Your task to perform on an android device: What's the weather? Image 0: 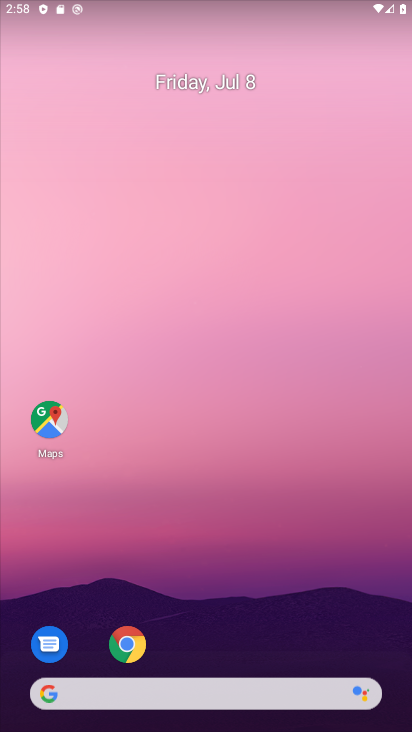
Step 0: click (121, 649)
Your task to perform on an android device: What's the weather? Image 1: 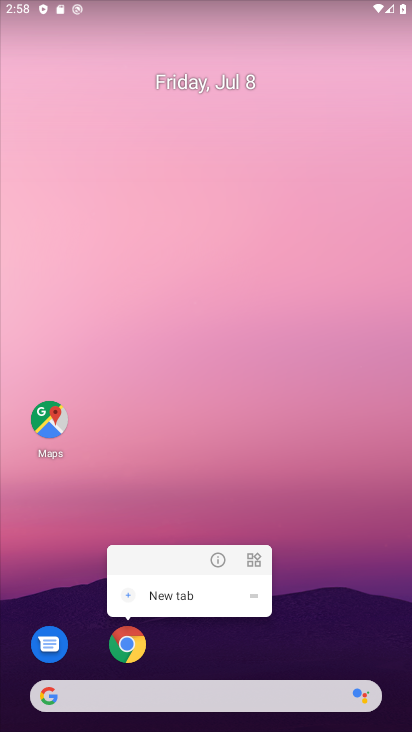
Step 1: click (129, 642)
Your task to perform on an android device: What's the weather? Image 2: 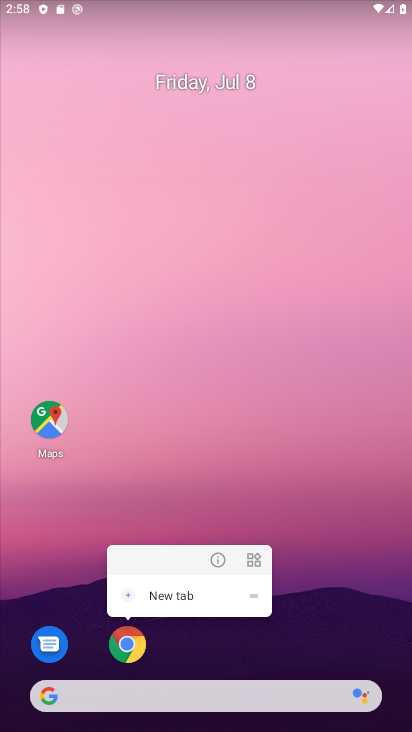
Step 2: click (131, 642)
Your task to perform on an android device: What's the weather? Image 3: 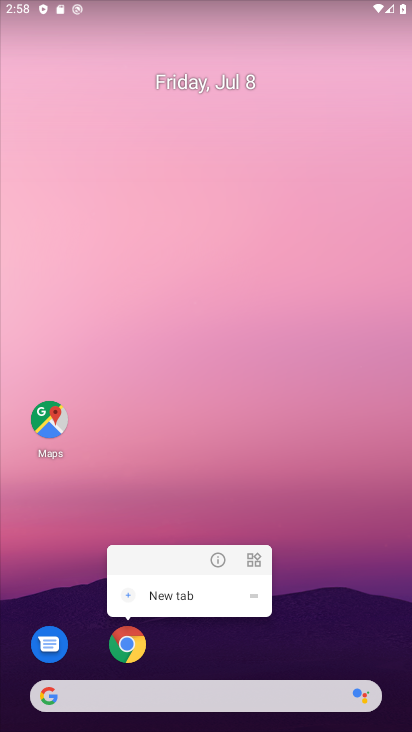
Step 3: click (131, 642)
Your task to perform on an android device: What's the weather? Image 4: 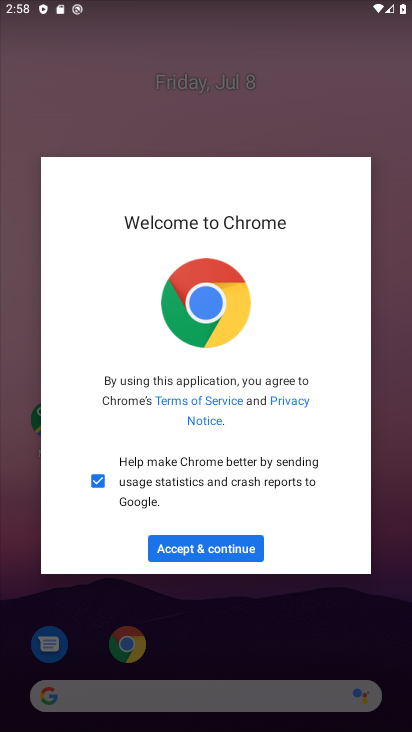
Step 4: click (249, 535)
Your task to perform on an android device: What's the weather? Image 5: 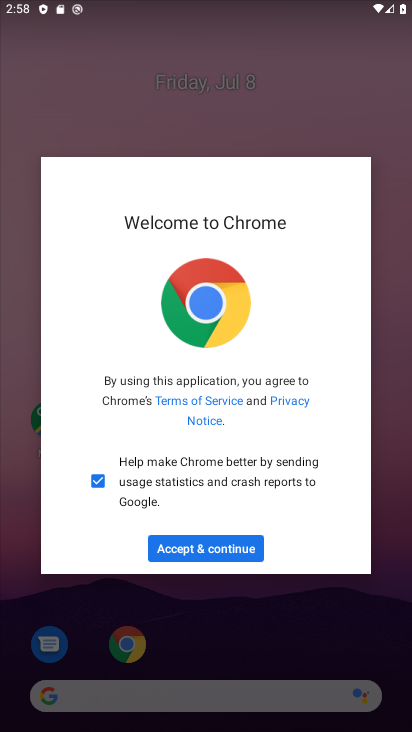
Step 5: click (252, 558)
Your task to perform on an android device: What's the weather? Image 6: 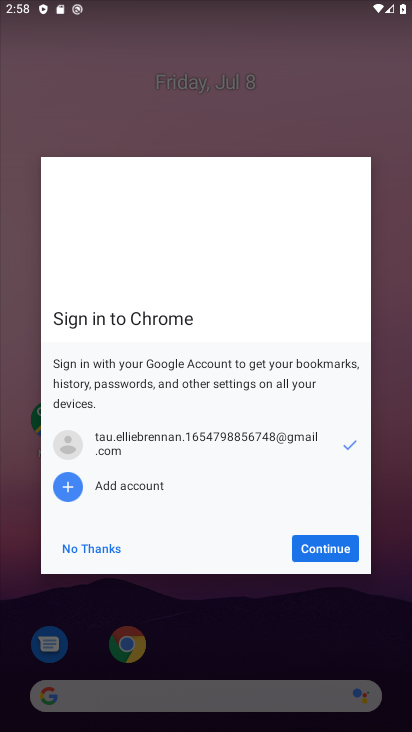
Step 6: click (317, 546)
Your task to perform on an android device: What's the weather? Image 7: 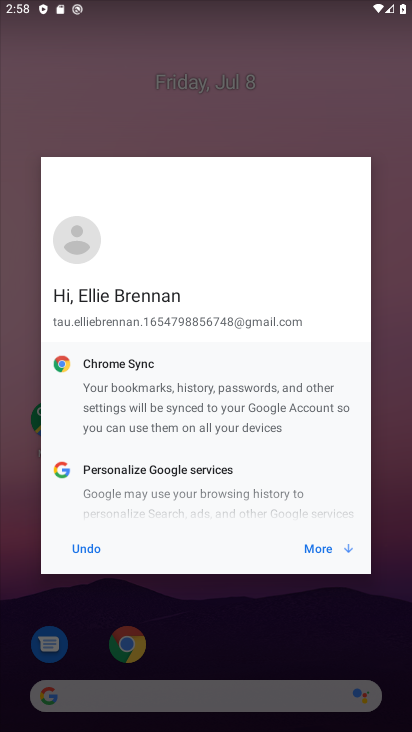
Step 7: click (316, 546)
Your task to perform on an android device: What's the weather? Image 8: 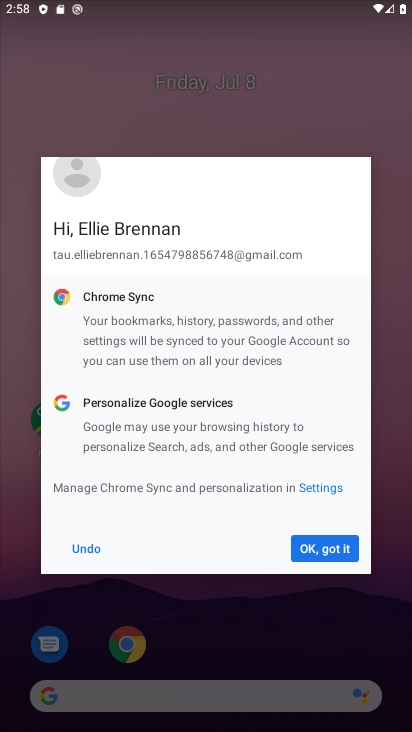
Step 8: click (343, 533)
Your task to perform on an android device: What's the weather? Image 9: 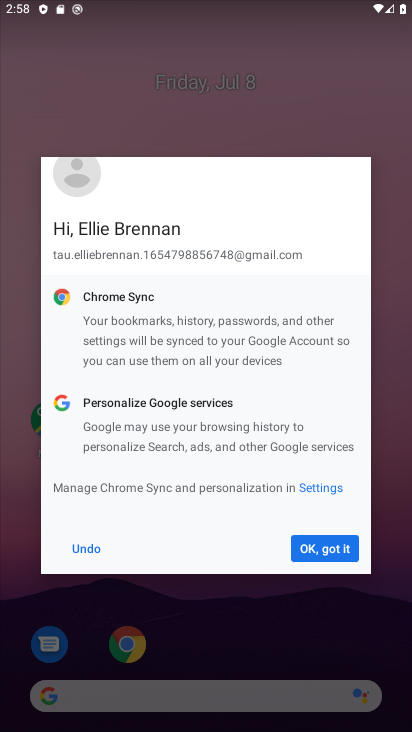
Step 9: click (323, 556)
Your task to perform on an android device: What's the weather? Image 10: 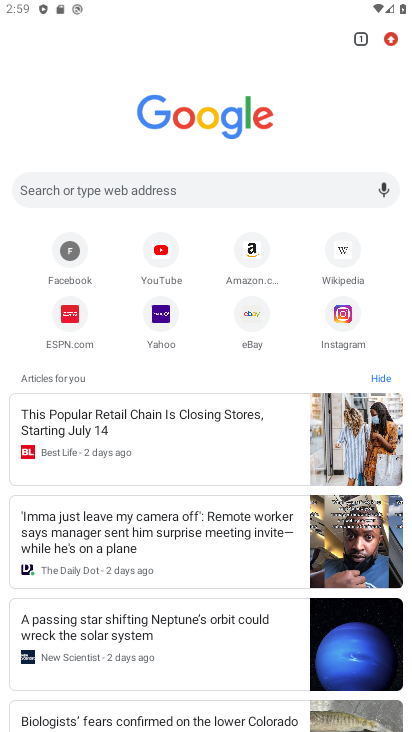
Step 10: type "What's the weather?"
Your task to perform on an android device: What's the weather? Image 11: 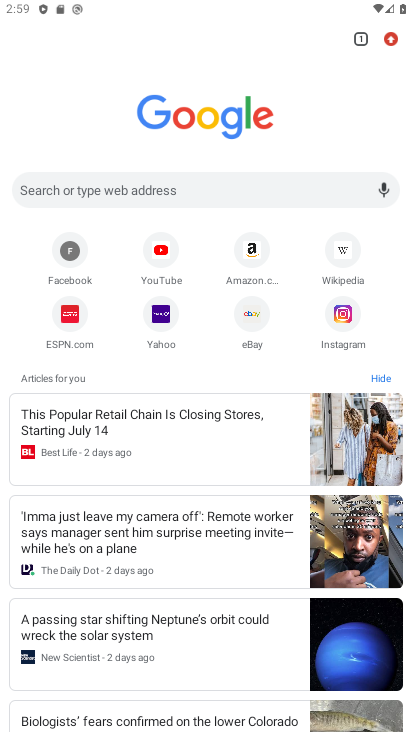
Step 11: click (188, 188)
Your task to perform on an android device: What's the weather? Image 12: 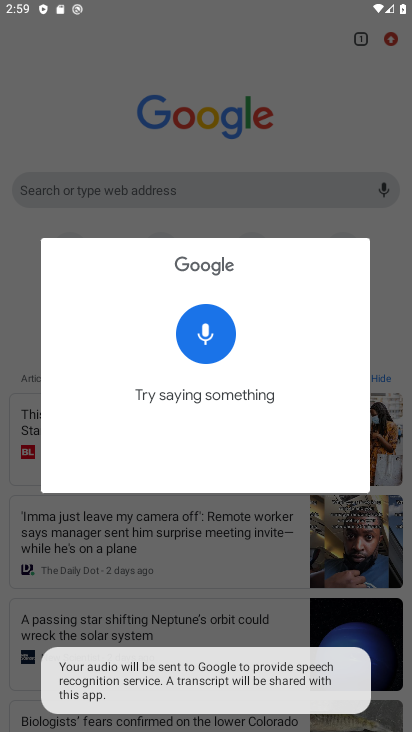
Step 12: type ""
Your task to perform on an android device: What's the weather? Image 13: 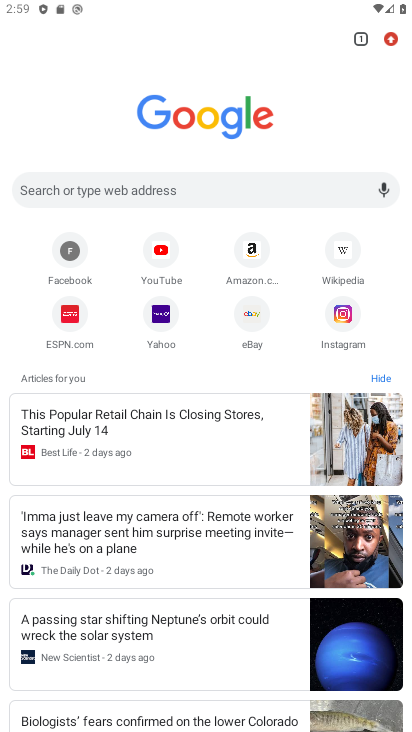
Step 13: click (168, 198)
Your task to perform on an android device: What's the weather? Image 14: 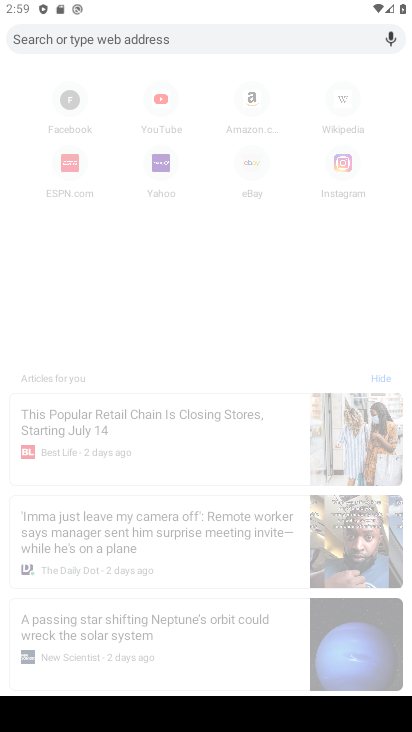
Step 14: type "What's the weather?"
Your task to perform on an android device: What's the weather? Image 15: 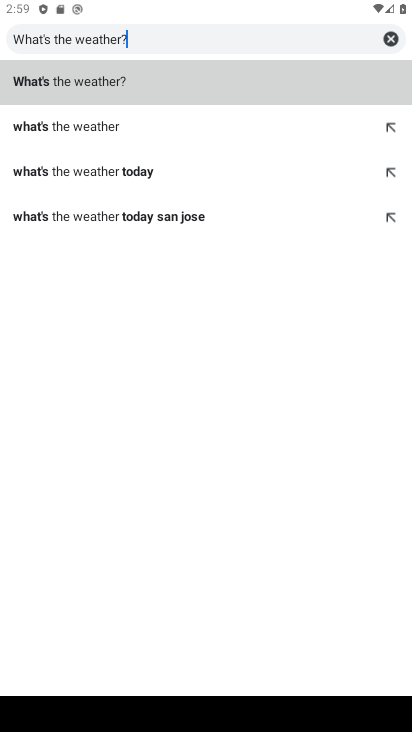
Step 15: type ""
Your task to perform on an android device: What's the weather? Image 16: 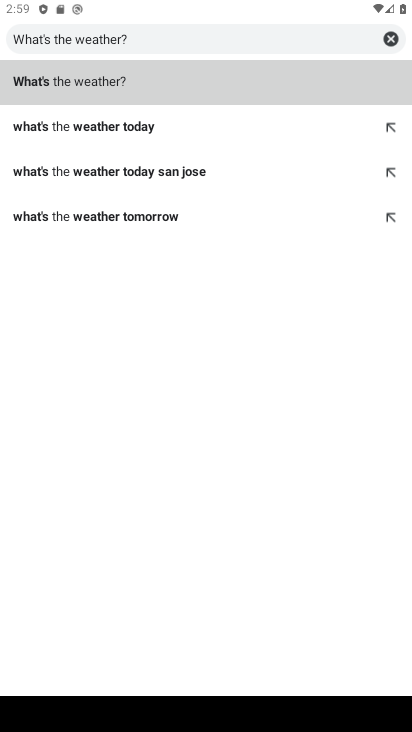
Step 16: click (81, 80)
Your task to perform on an android device: What's the weather? Image 17: 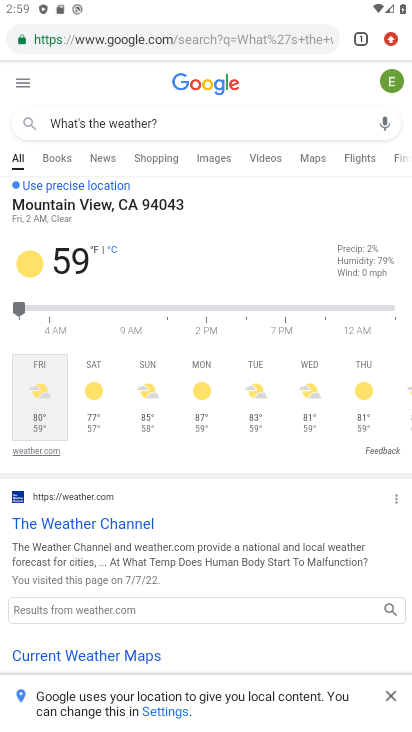
Step 17: click (396, 692)
Your task to perform on an android device: What's the weather? Image 18: 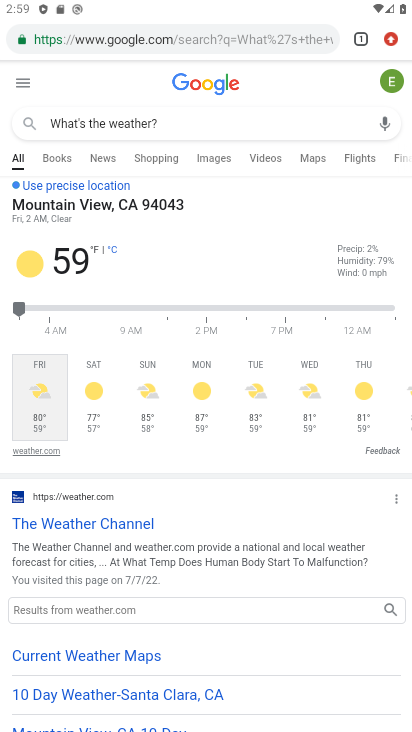
Step 18: task complete